Your task to perform on an android device: set default search engine in the chrome app Image 0: 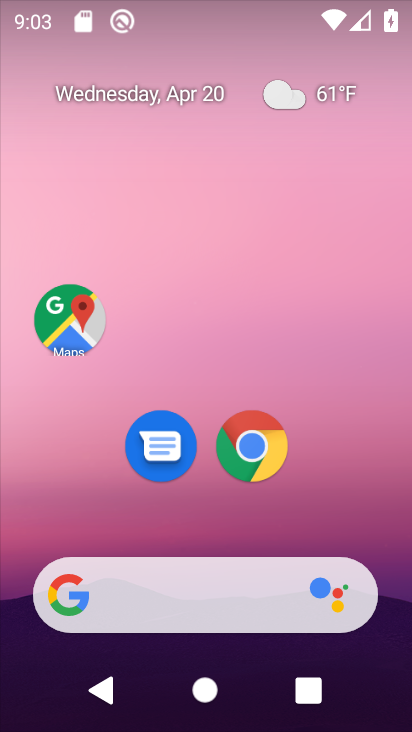
Step 0: drag from (369, 483) to (369, 74)
Your task to perform on an android device: set default search engine in the chrome app Image 1: 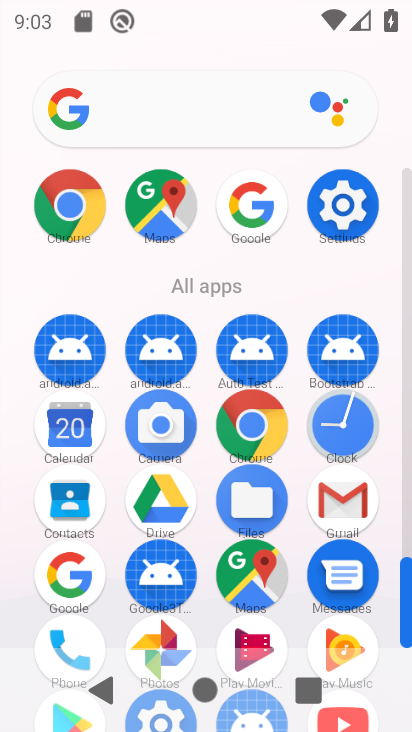
Step 1: click (60, 218)
Your task to perform on an android device: set default search engine in the chrome app Image 2: 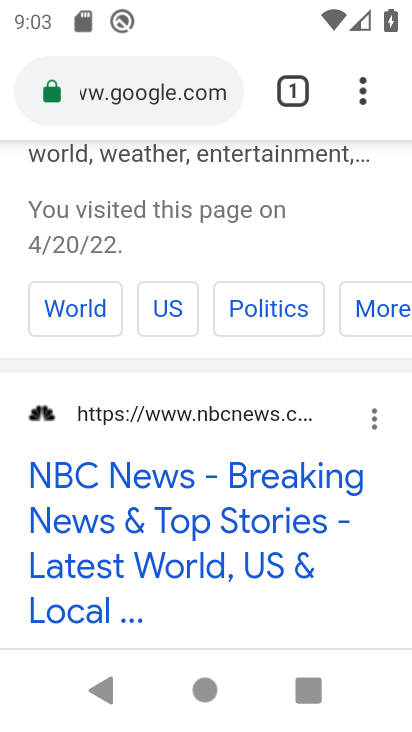
Step 2: drag from (355, 101) to (220, 484)
Your task to perform on an android device: set default search engine in the chrome app Image 3: 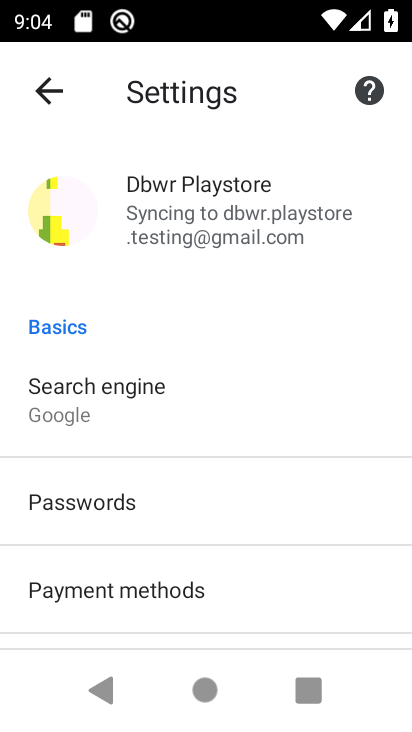
Step 3: click (177, 397)
Your task to perform on an android device: set default search engine in the chrome app Image 4: 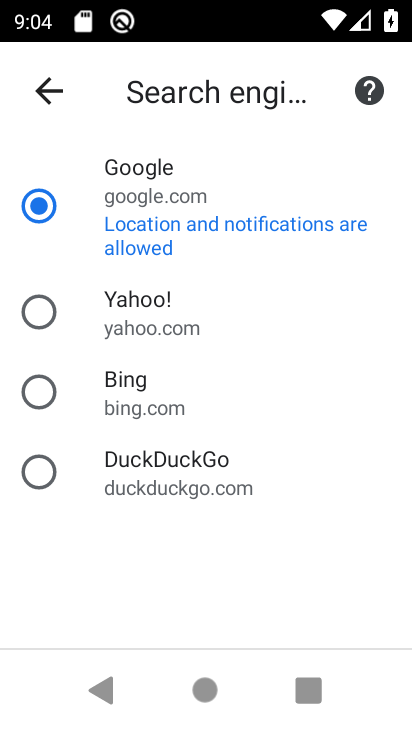
Step 4: click (142, 319)
Your task to perform on an android device: set default search engine in the chrome app Image 5: 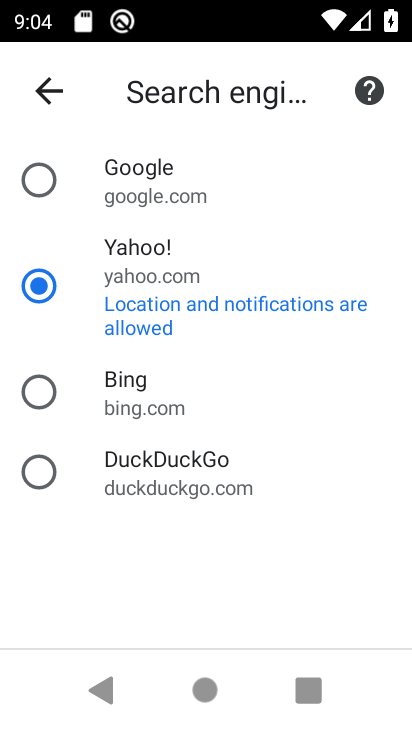
Step 5: task complete